Your task to perform on an android device: Clear the shopping cart on costco. Search for logitech g pro on costco, select the first entry, add it to the cart, then select checkout. Image 0: 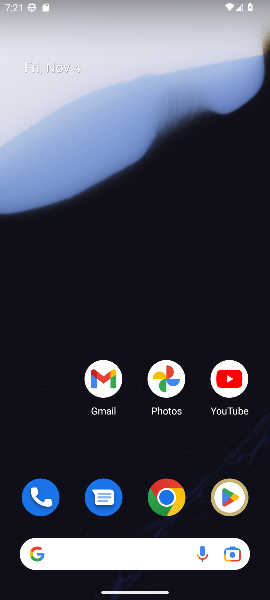
Step 0: click (160, 501)
Your task to perform on an android device: Clear the shopping cart on costco. Search for logitech g pro on costco, select the first entry, add it to the cart, then select checkout. Image 1: 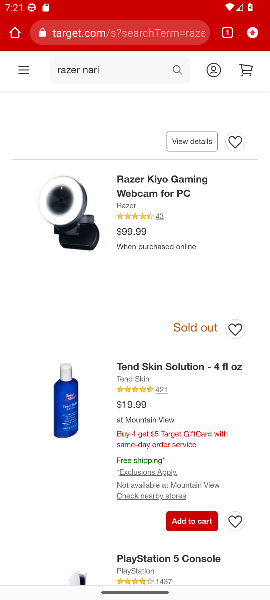
Step 1: click (120, 37)
Your task to perform on an android device: Clear the shopping cart on costco. Search for logitech g pro on costco, select the first entry, add it to the cart, then select checkout. Image 2: 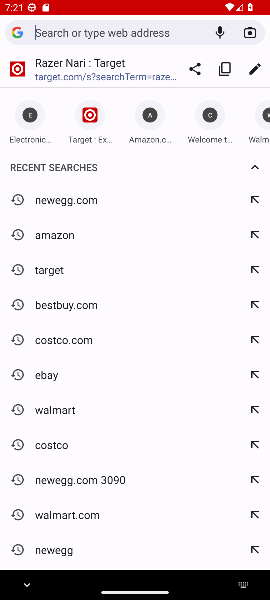
Step 2: click (50, 339)
Your task to perform on an android device: Clear the shopping cart on costco. Search for logitech g pro on costco, select the first entry, add it to the cart, then select checkout. Image 3: 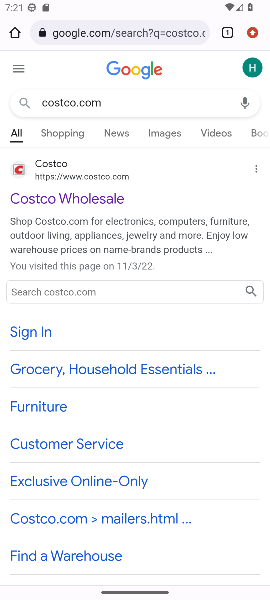
Step 3: click (64, 205)
Your task to perform on an android device: Clear the shopping cart on costco. Search for logitech g pro on costco, select the first entry, add it to the cart, then select checkout. Image 4: 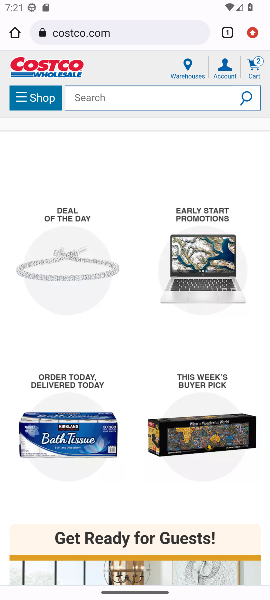
Step 4: click (256, 71)
Your task to perform on an android device: Clear the shopping cart on costco. Search for logitech g pro on costco, select the first entry, add it to the cart, then select checkout. Image 5: 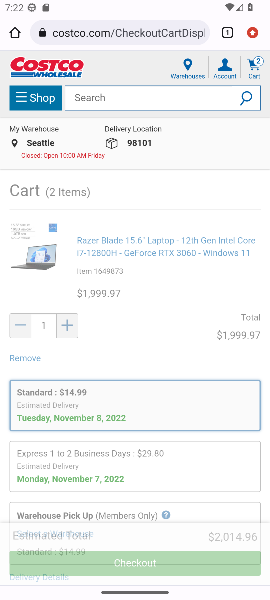
Step 5: click (32, 358)
Your task to perform on an android device: Clear the shopping cart on costco. Search for logitech g pro on costco, select the first entry, add it to the cart, then select checkout. Image 6: 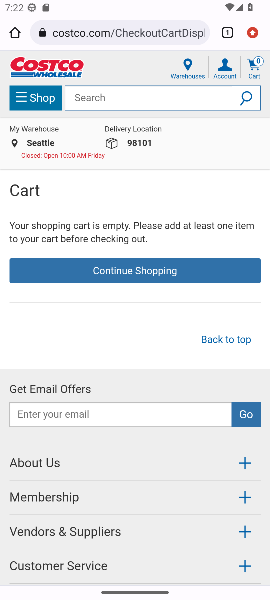
Step 6: click (123, 97)
Your task to perform on an android device: Clear the shopping cart on costco. Search for logitech g pro on costco, select the first entry, add it to the cart, then select checkout. Image 7: 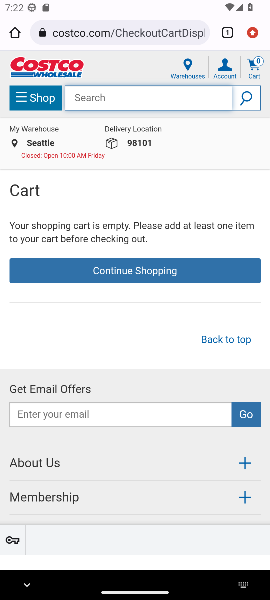
Step 7: type "logitech g pro "
Your task to perform on an android device: Clear the shopping cart on costco. Search for logitech g pro on costco, select the first entry, add it to the cart, then select checkout. Image 8: 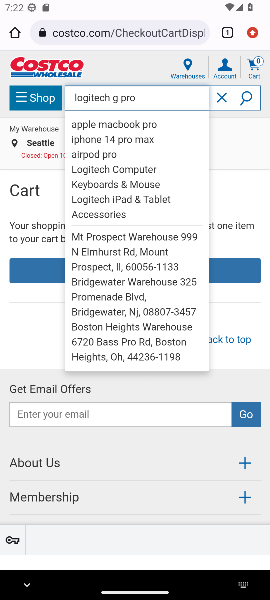
Step 8: click (245, 100)
Your task to perform on an android device: Clear the shopping cart on costco. Search for logitech g pro on costco, select the first entry, add it to the cart, then select checkout. Image 9: 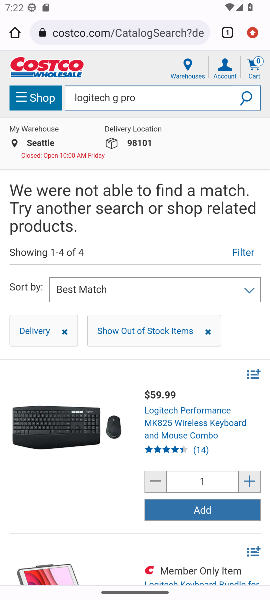
Step 9: task complete